Your task to perform on an android device: When is my next meeting? Image 0: 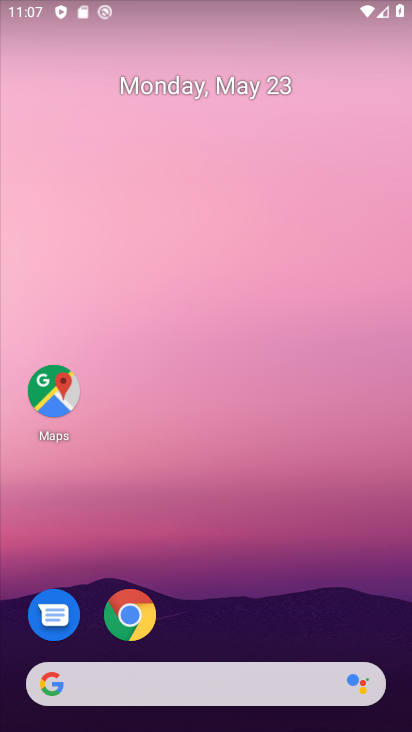
Step 0: drag from (205, 640) to (234, 140)
Your task to perform on an android device: When is my next meeting? Image 1: 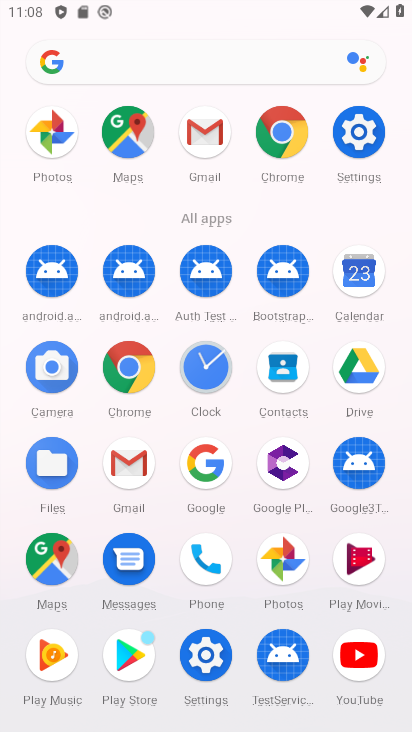
Step 1: click (360, 260)
Your task to perform on an android device: When is my next meeting? Image 2: 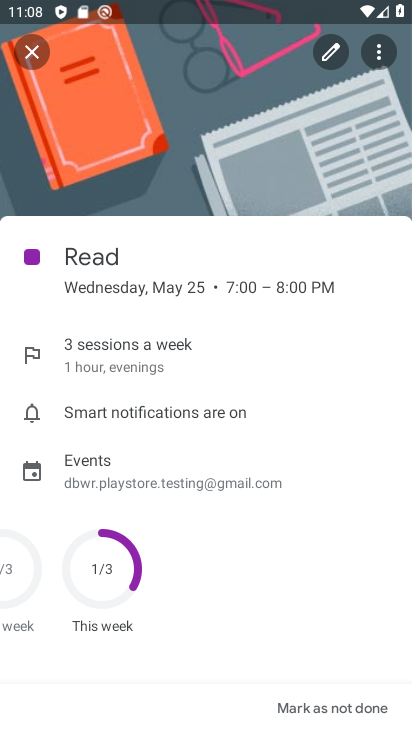
Step 2: task complete